Your task to perform on an android device: toggle javascript in the chrome app Image 0: 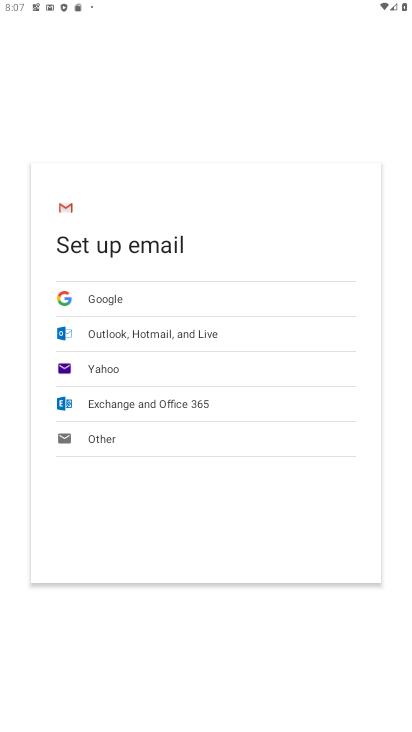
Step 0: press home button
Your task to perform on an android device: toggle javascript in the chrome app Image 1: 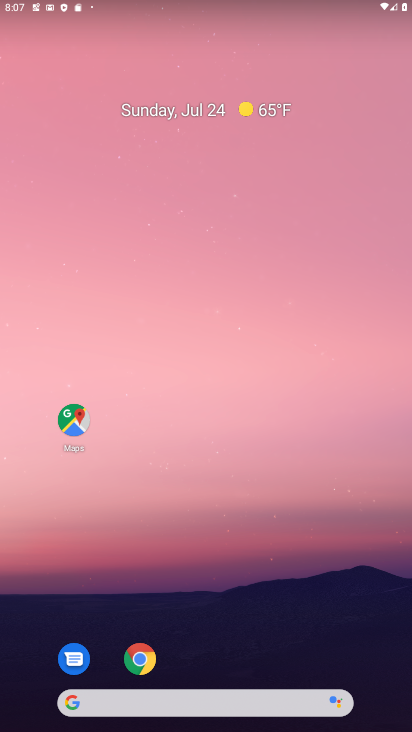
Step 1: click (139, 666)
Your task to perform on an android device: toggle javascript in the chrome app Image 2: 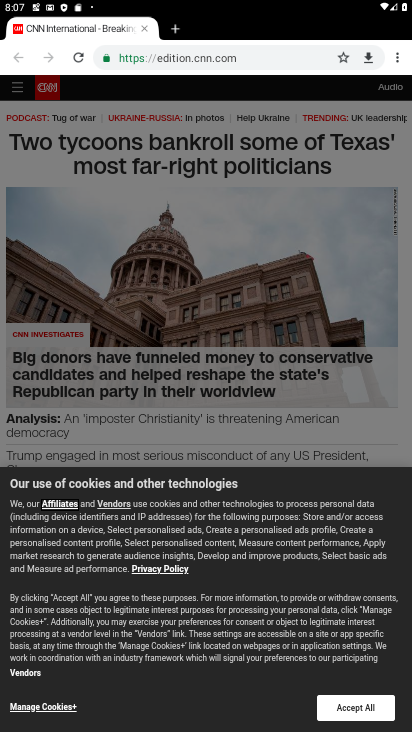
Step 2: click (399, 58)
Your task to perform on an android device: toggle javascript in the chrome app Image 3: 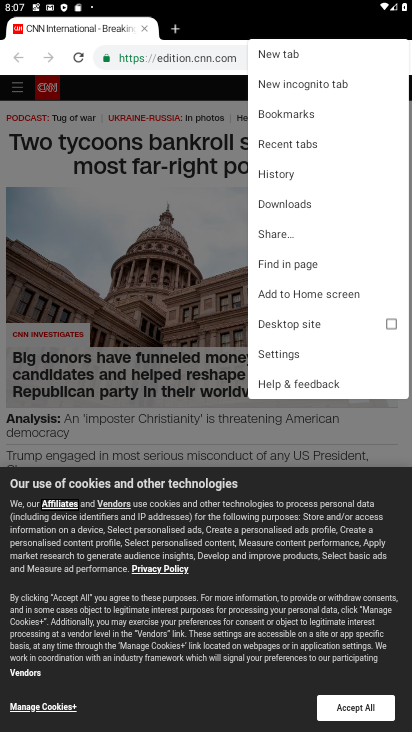
Step 3: click (277, 354)
Your task to perform on an android device: toggle javascript in the chrome app Image 4: 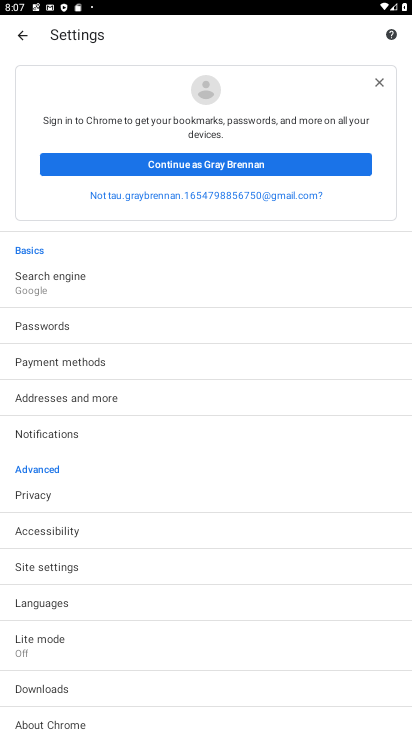
Step 4: click (43, 567)
Your task to perform on an android device: toggle javascript in the chrome app Image 5: 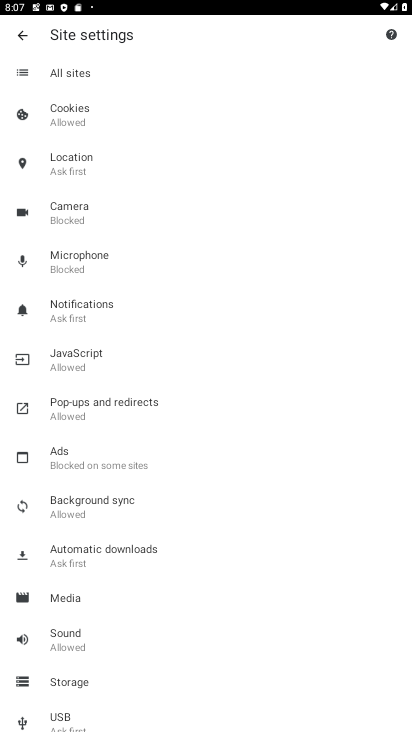
Step 5: click (64, 364)
Your task to perform on an android device: toggle javascript in the chrome app Image 6: 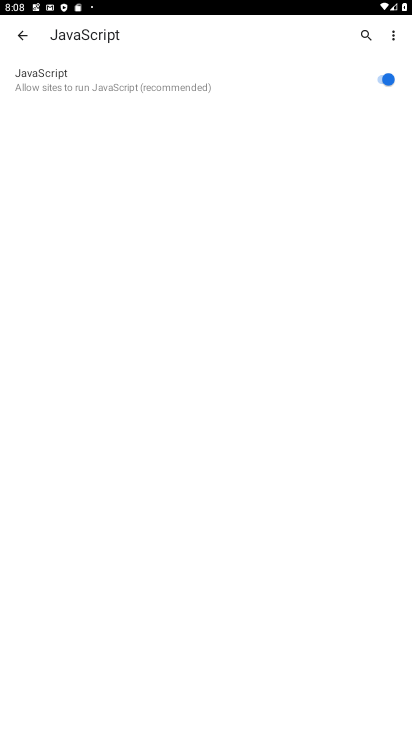
Step 6: click (377, 73)
Your task to perform on an android device: toggle javascript in the chrome app Image 7: 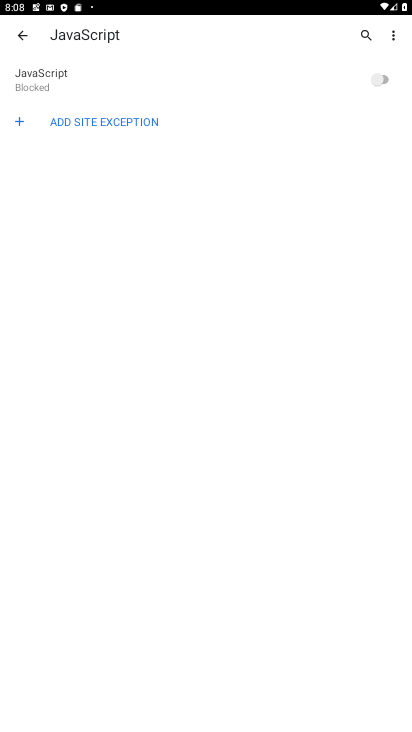
Step 7: task complete